Your task to perform on an android device: turn off location history Image 0: 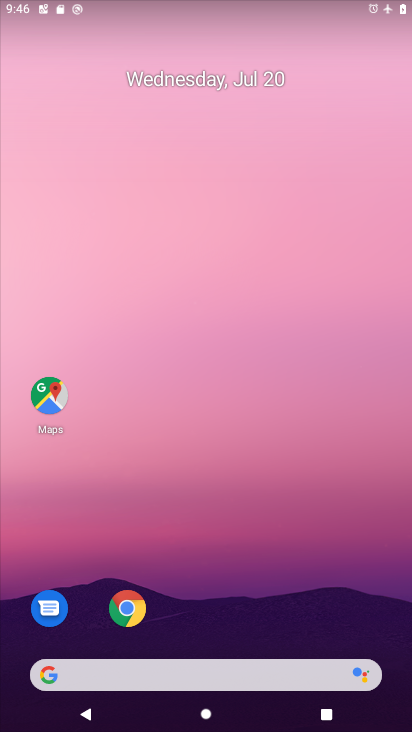
Step 0: drag from (277, 637) to (295, 174)
Your task to perform on an android device: turn off location history Image 1: 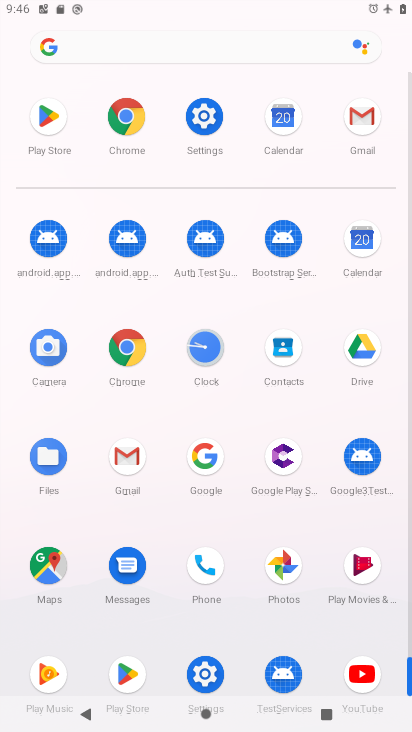
Step 1: click (56, 562)
Your task to perform on an android device: turn off location history Image 2: 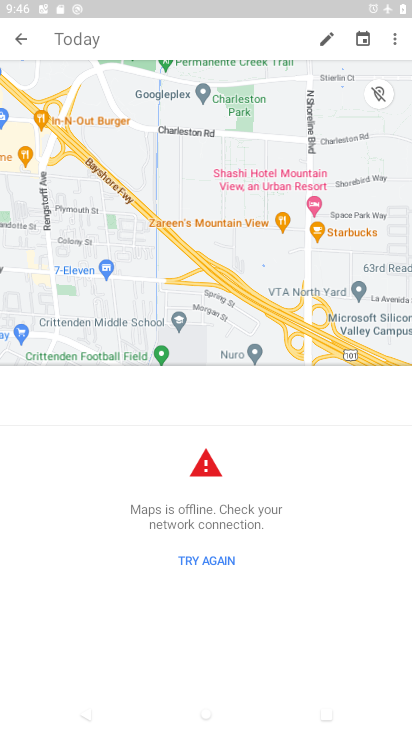
Step 2: click (400, 40)
Your task to perform on an android device: turn off location history Image 3: 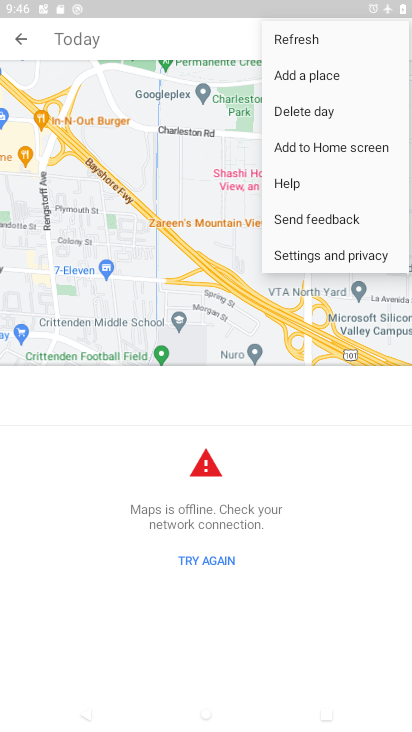
Step 3: click (320, 254)
Your task to perform on an android device: turn off location history Image 4: 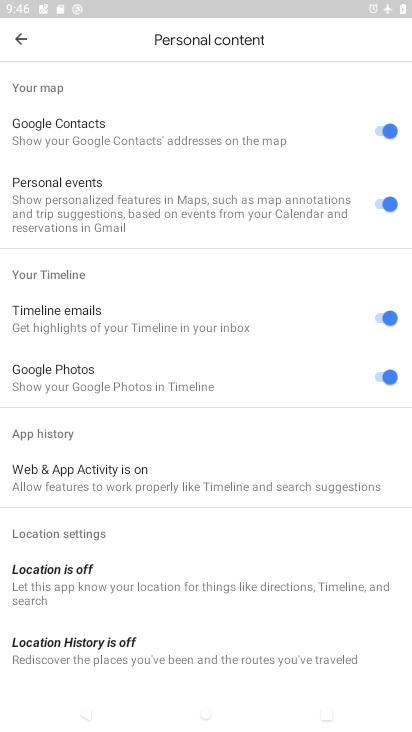
Step 4: click (105, 640)
Your task to perform on an android device: turn off location history Image 5: 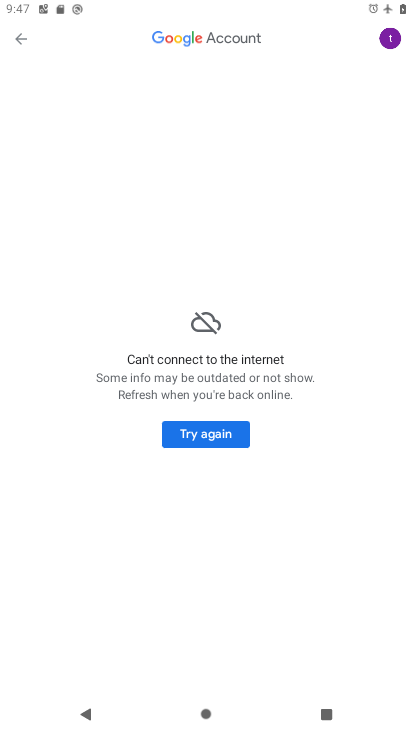
Step 5: click (198, 426)
Your task to perform on an android device: turn off location history Image 6: 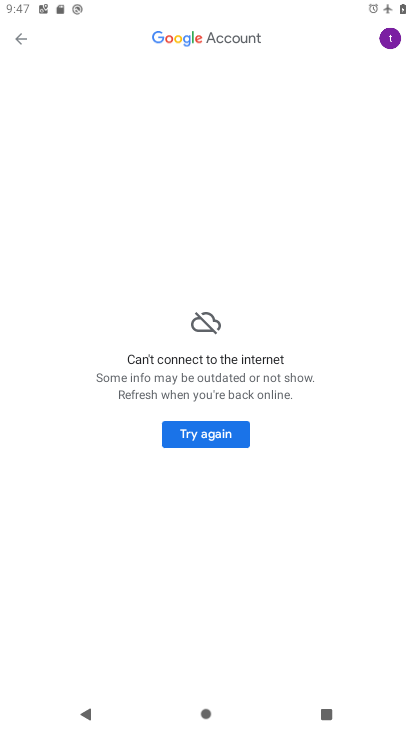
Step 6: task complete